Your task to perform on an android device: open app "Fetch Rewards" (install if not already installed) Image 0: 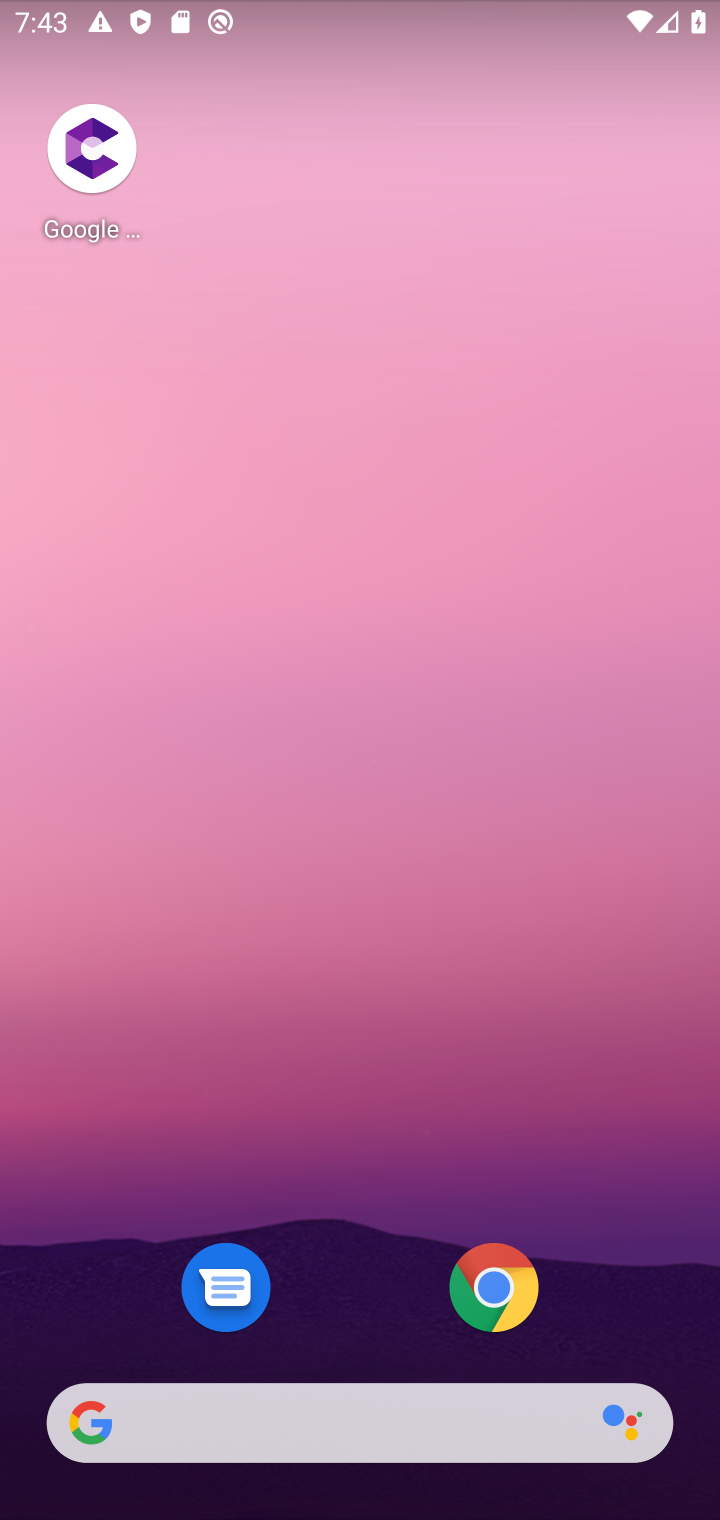
Step 0: drag from (327, 1352) to (599, 64)
Your task to perform on an android device: open app "Fetch Rewards" (install if not already installed) Image 1: 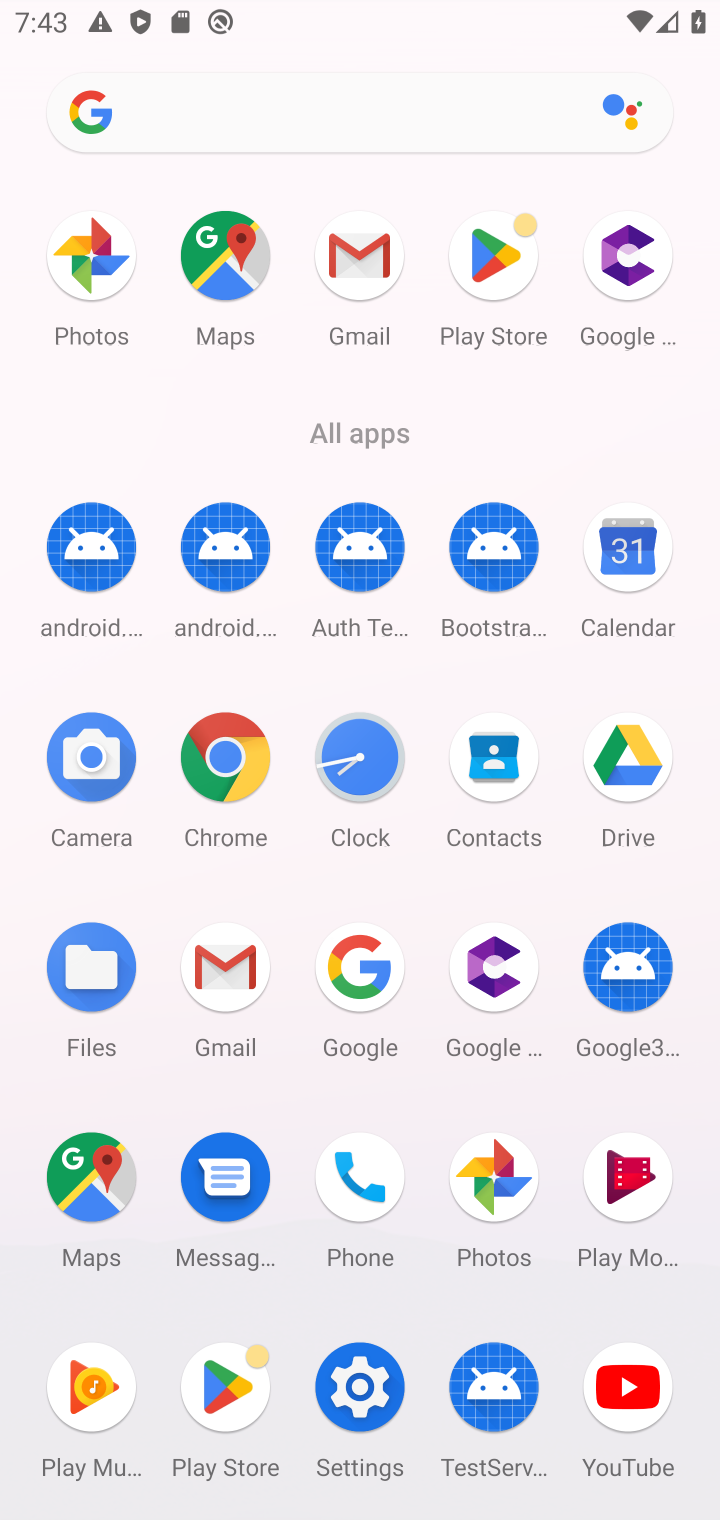
Step 1: click (483, 233)
Your task to perform on an android device: open app "Fetch Rewards" (install if not already installed) Image 2: 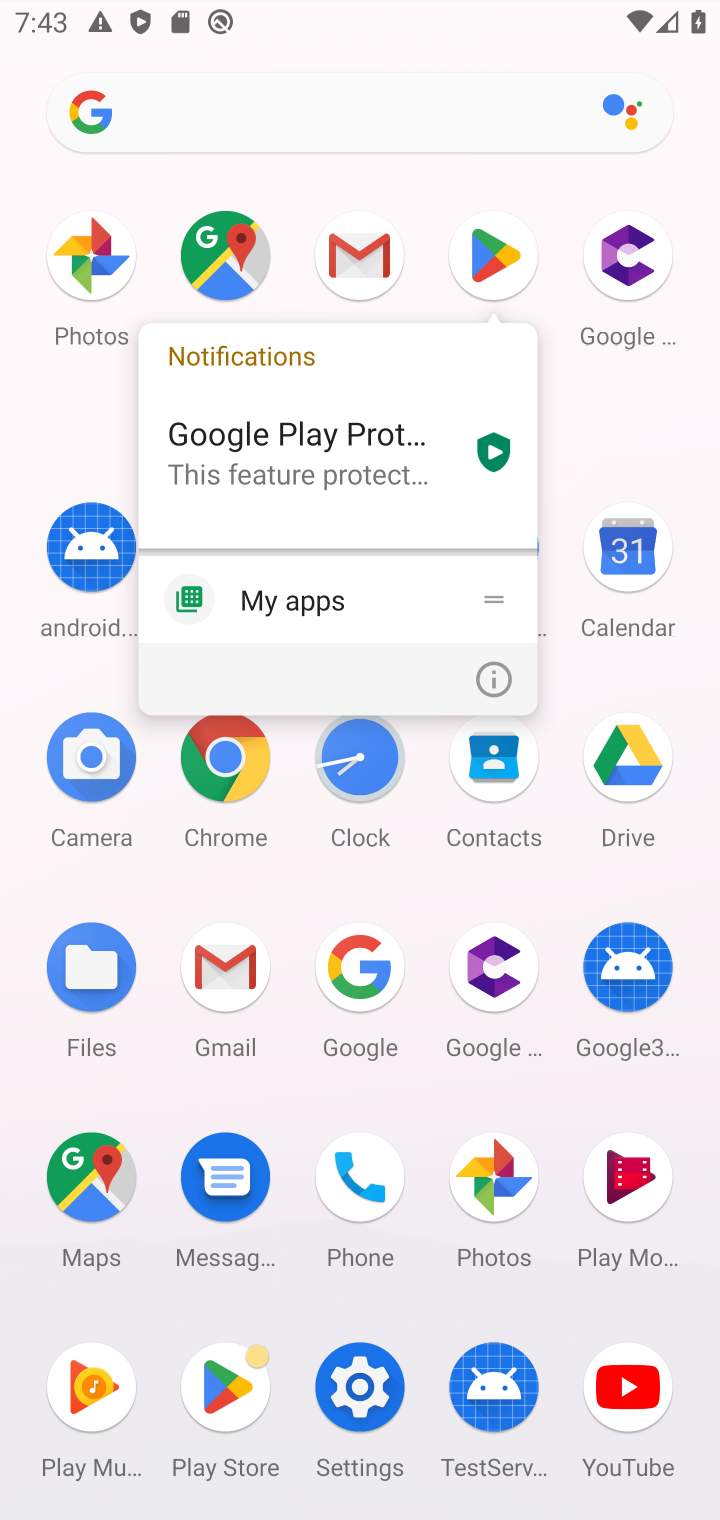
Step 2: click (483, 233)
Your task to perform on an android device: open app "Fetch Rewards" (install if not already installed) Image 3: 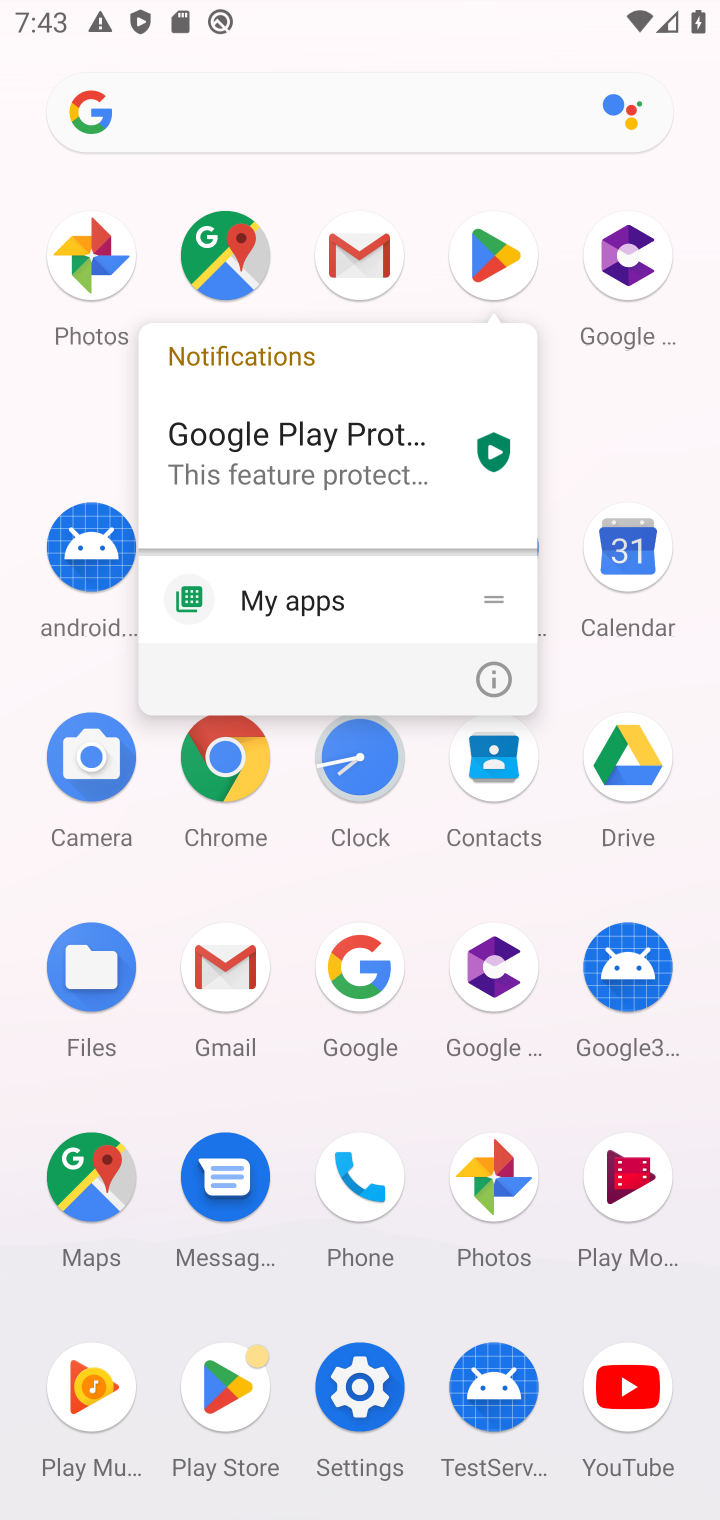
Step 3: click (219, 1368)
Your task to perform on an android device: open app "Fetch Rewards" (install if not already installed) Image 4: 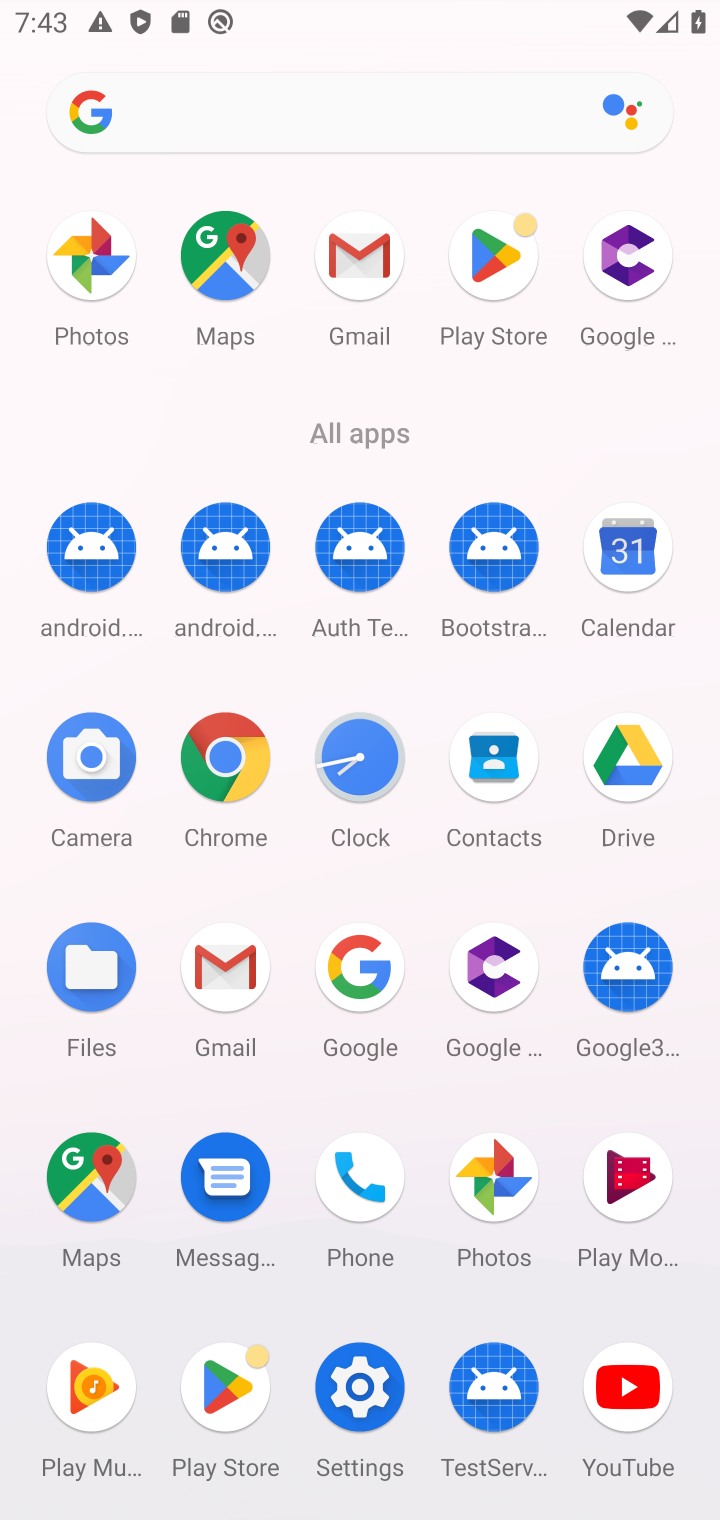
Step 4: click (219, 1368)
Your task to perform on an android device: open app "Fetch Rewards" (install if not already installed) Image 5: 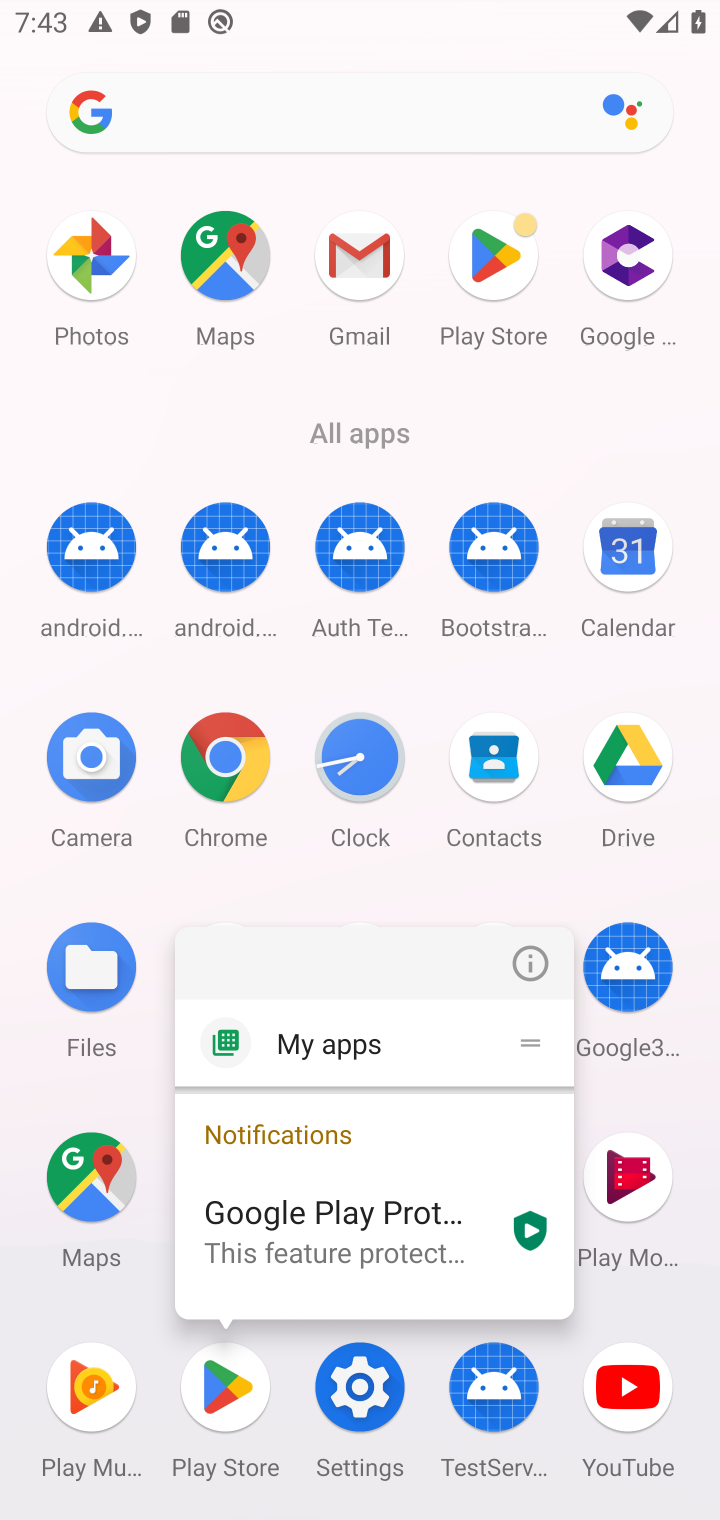
Step 5: click (219, 1368)
Your task to perform on an android device: open app "Fetch Rewards" (install if not already installed) Image 6: 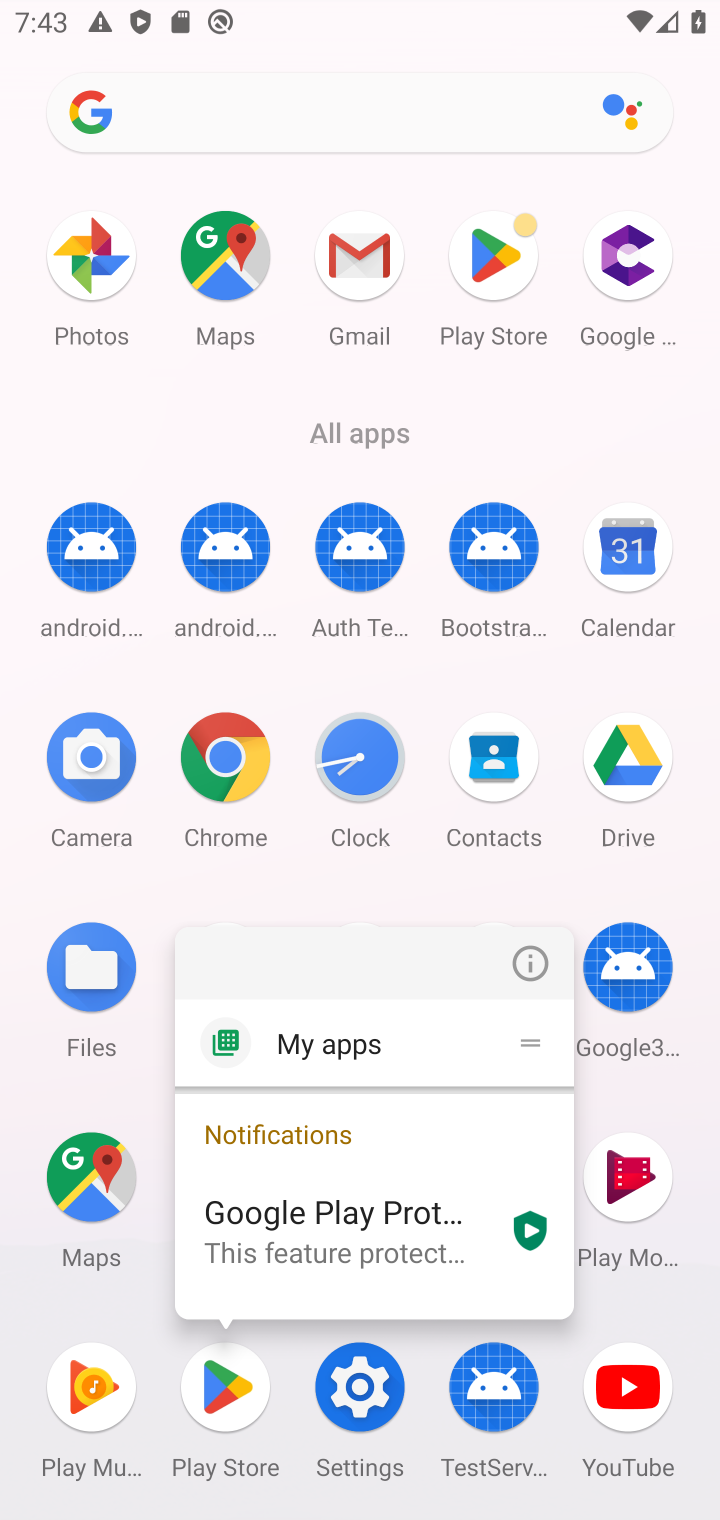
Step 6: click (219, 1368)
Your task to perform on an android device: open app "Fetch Rewards" (install if not already installed) Image 7: 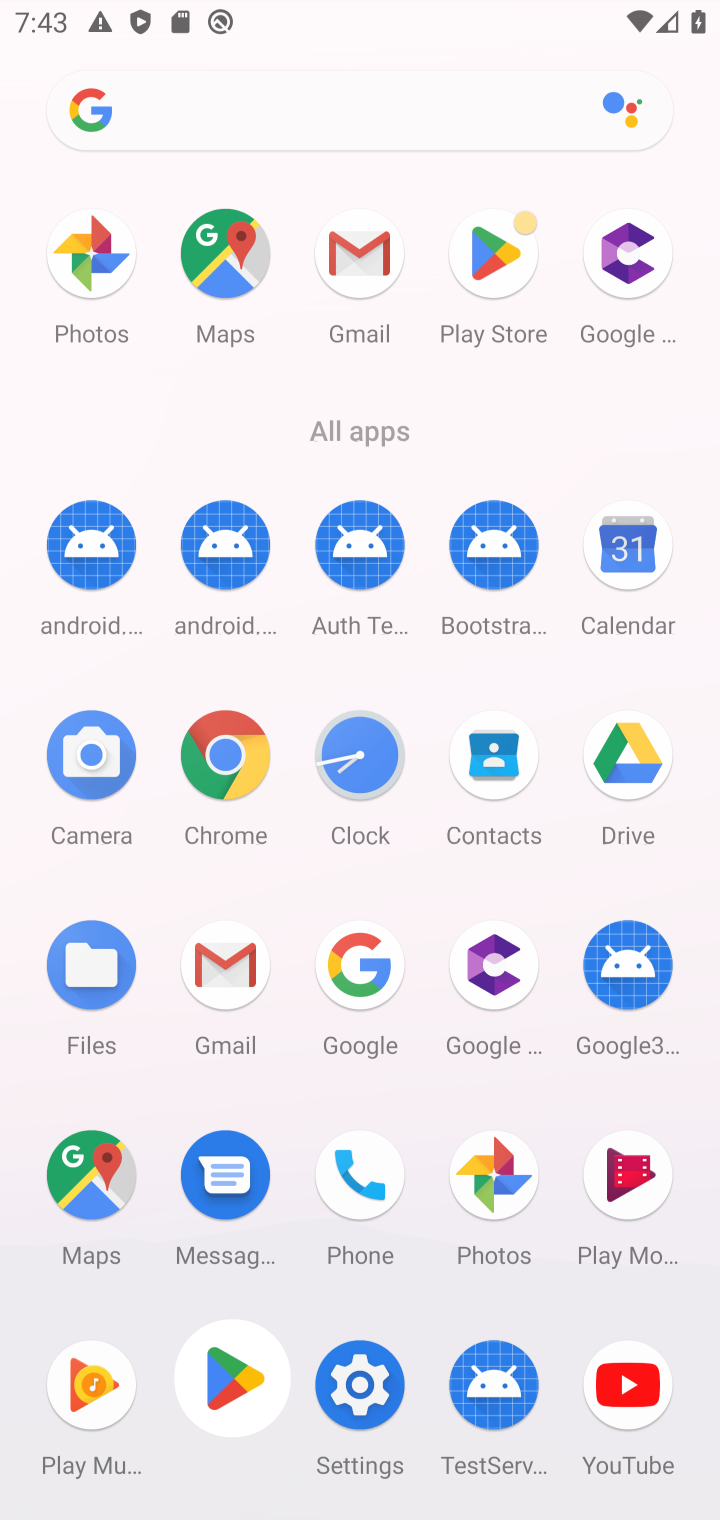
Step 7: click (212, 1388)
Your task to perform on an android device: open app "Fetch Rewards" (install if not already installed) Image 8: 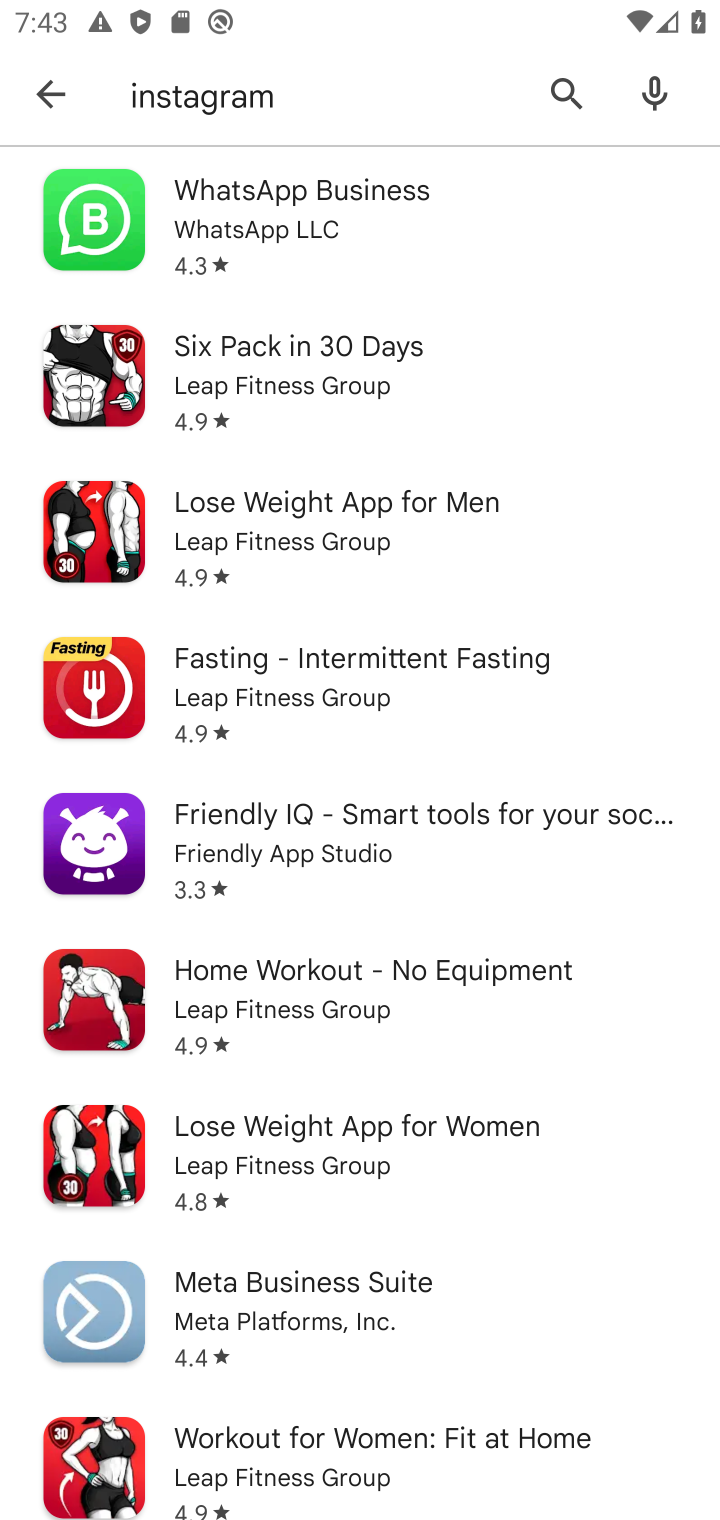
Step 8: click (550, 87)
Your task to perform on an android device: open app "Fetch Rewards" (install if not already installed) Image 9: 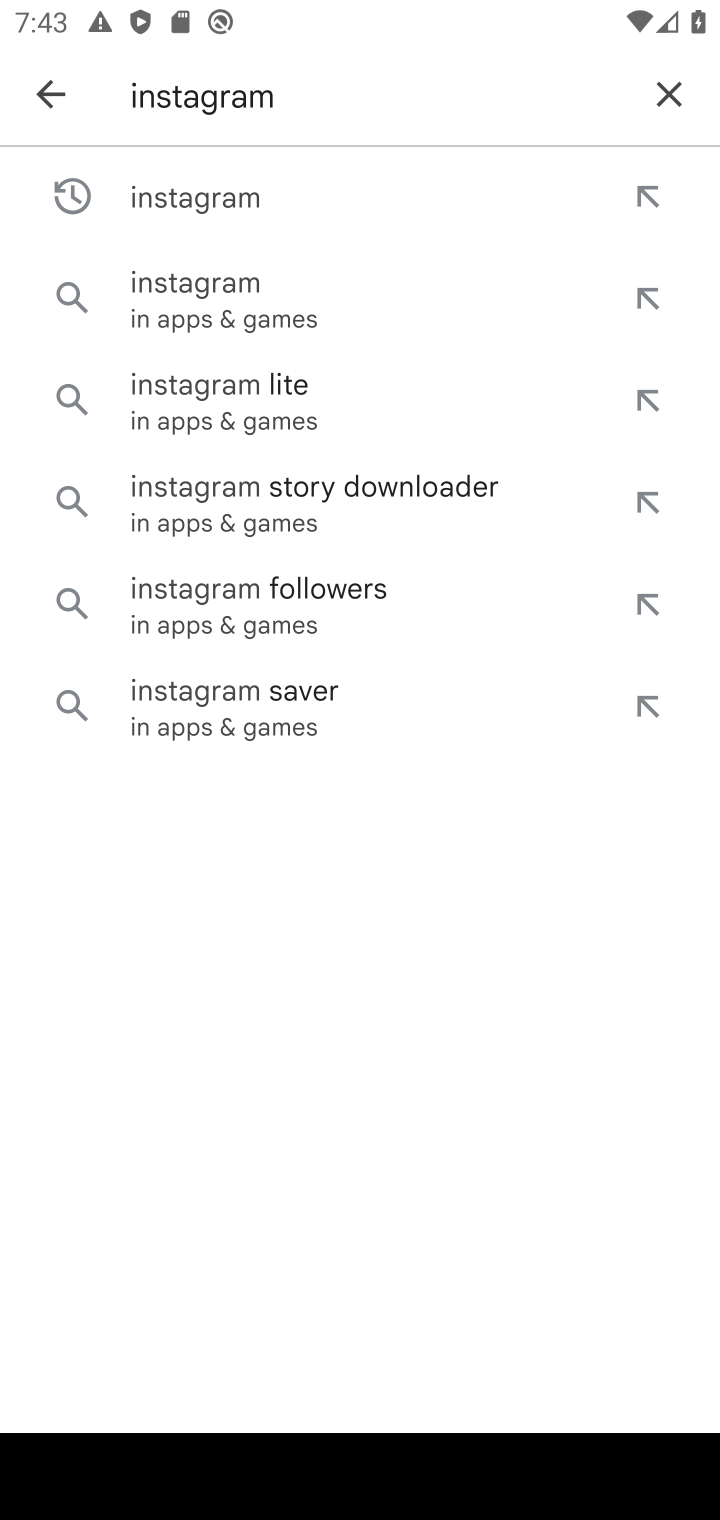
Step 9: click (672, 95)
Your task to perform on an android device: open app "Fetch Rewards" (install if not already installed) Image 10: 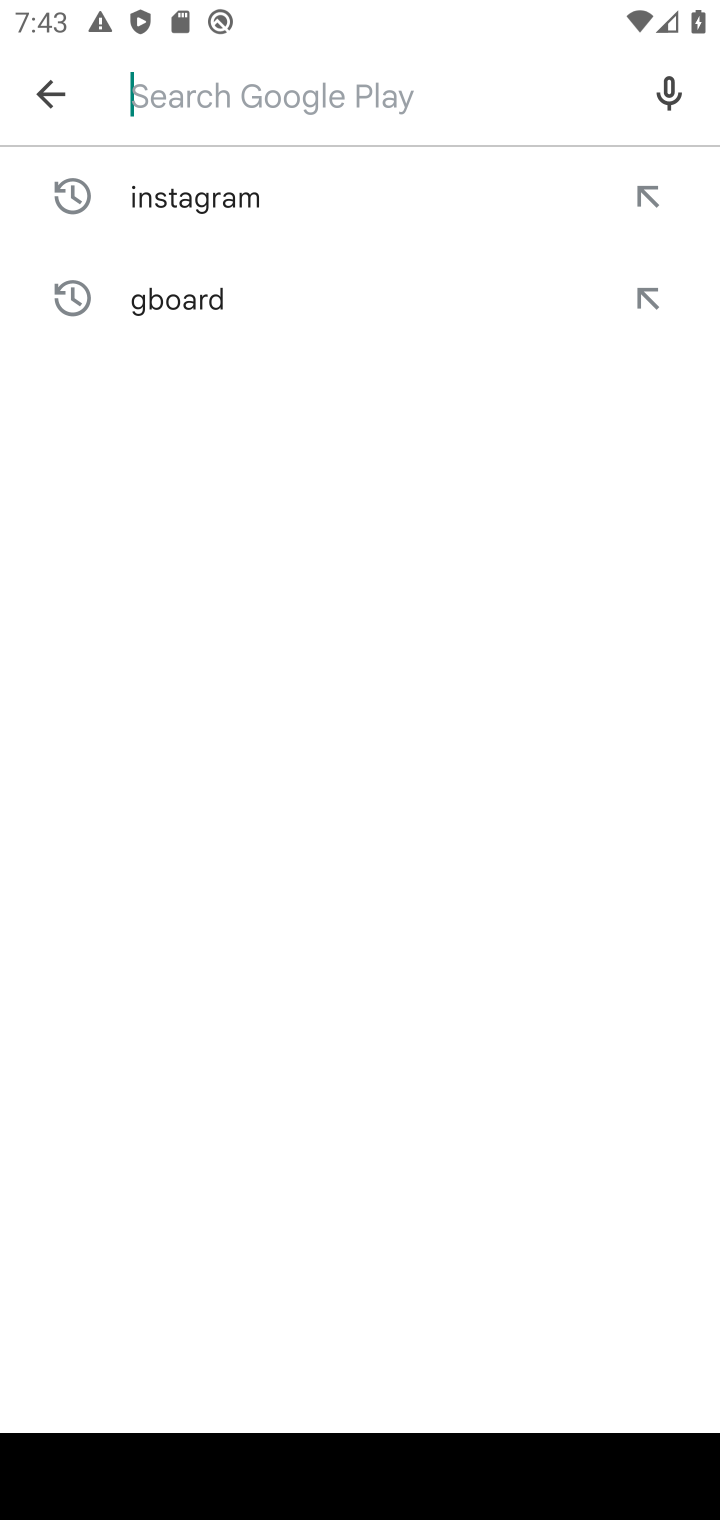
Step 10: type "Fetch Rewards"
Your task to perform on an android device: open app "Fetch Rewards" (install if not already installed) Image 11: 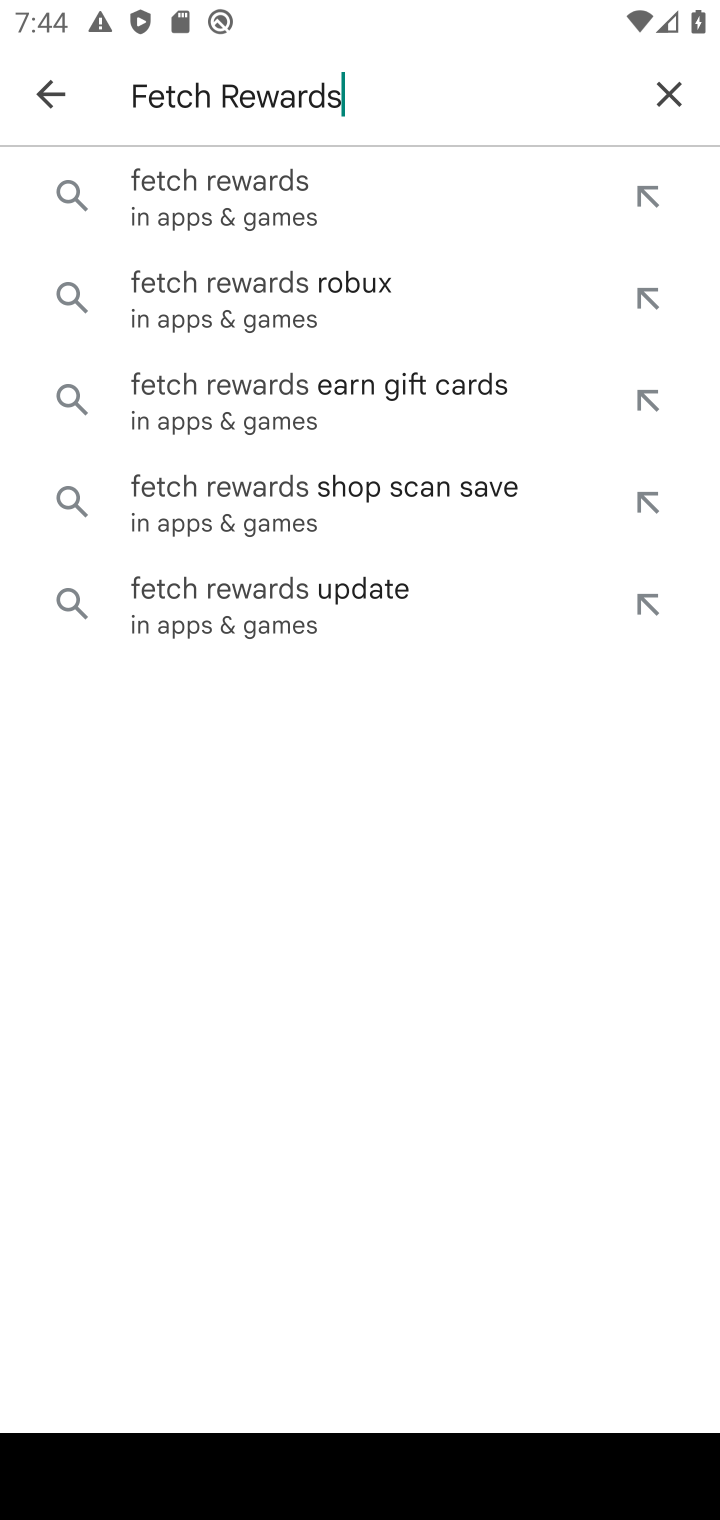
Step 11: type ""
Your task to perform on an android device: open app "Fetch Rewards" (install if not already installed) Image 12: 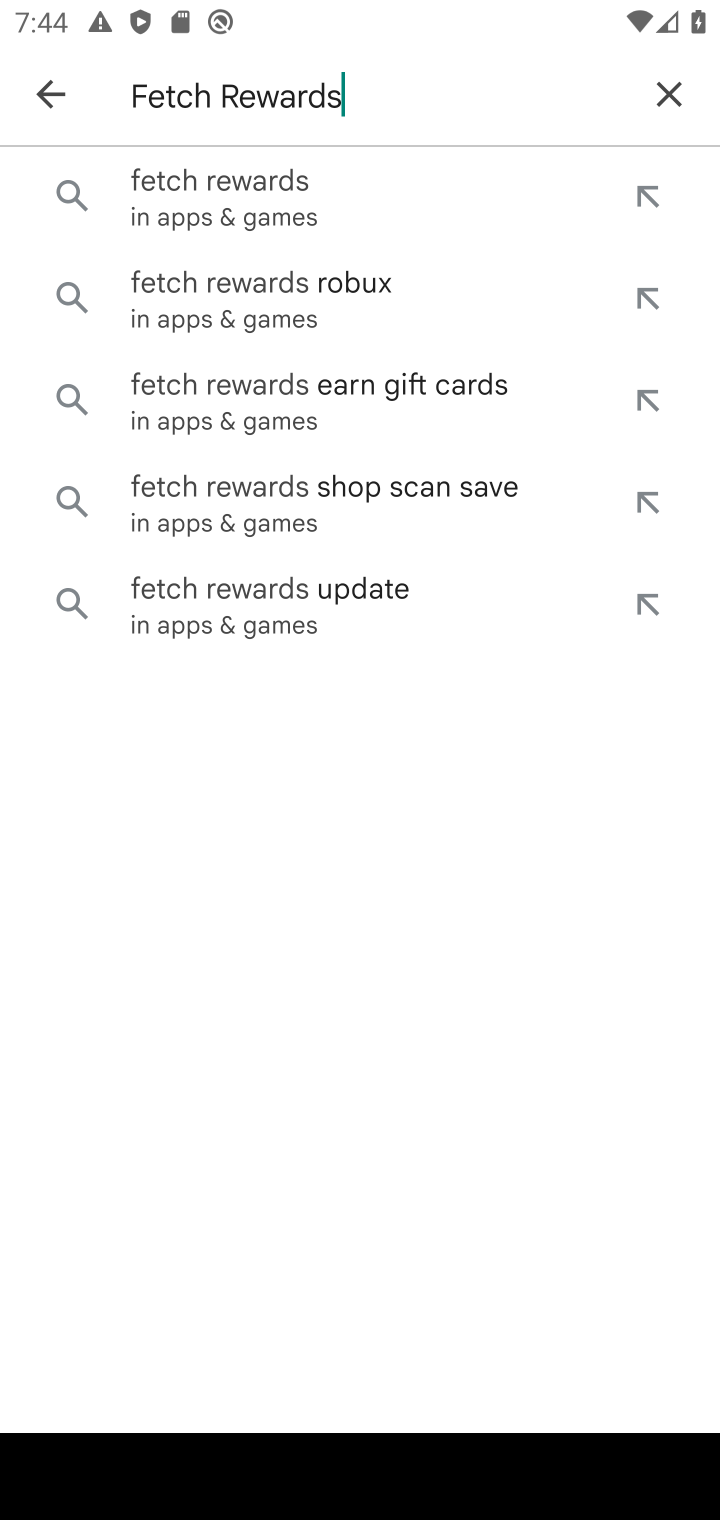
Step 12: press enter
Your task to perform on an android device: open app "Fetch Rewards" (install if not already installed) Image 13: 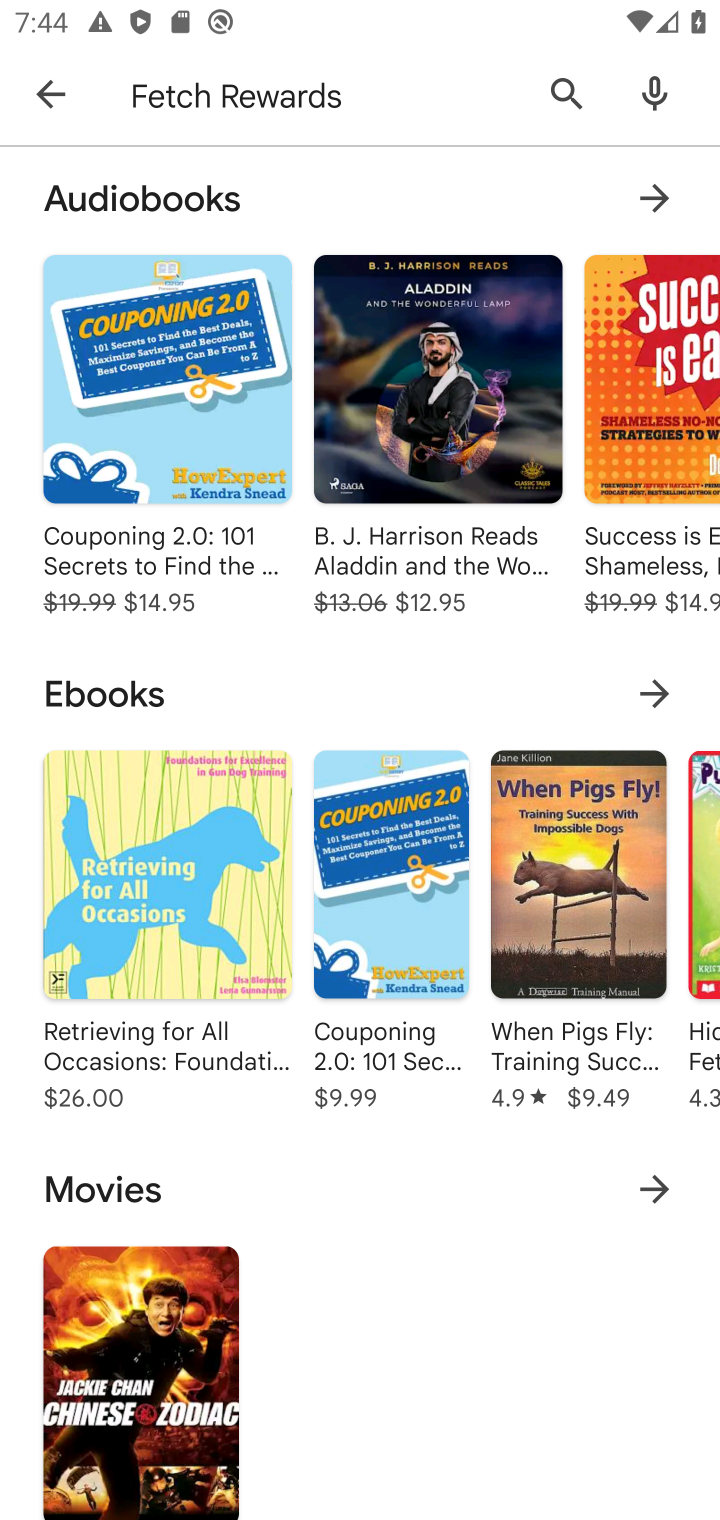
Step 13: task complete